Your task to perform on an android device: Open settings Image 0: 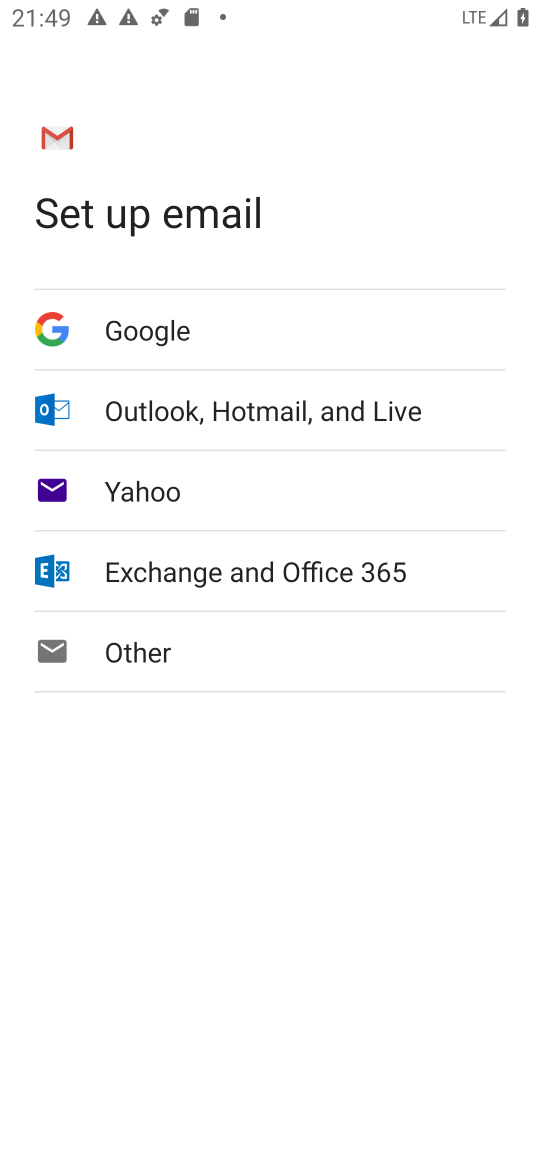
Step 0: press home button
Your task to perform on an android device: Open settings Image 1: 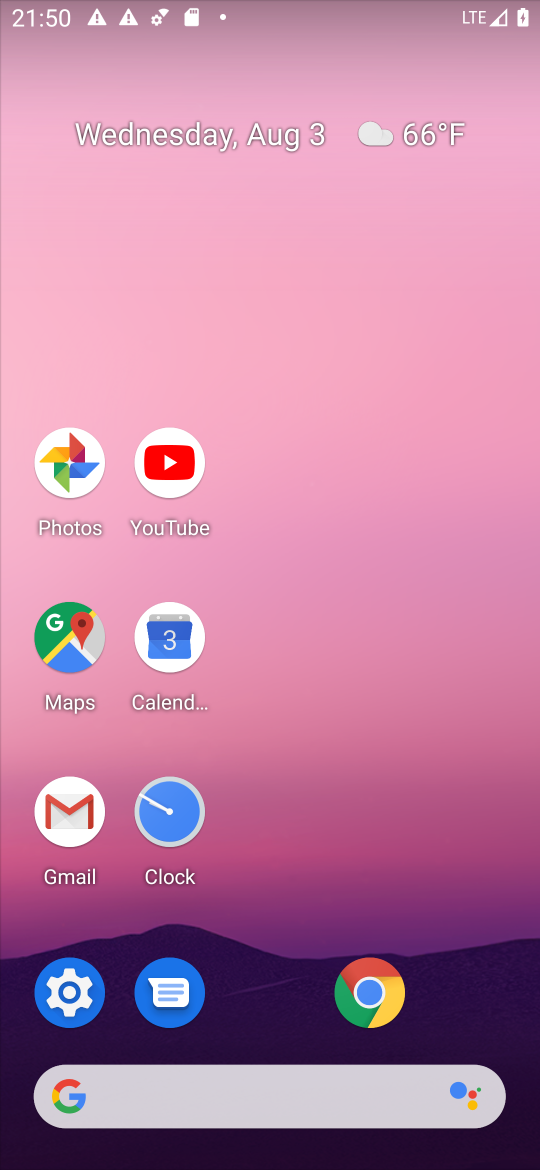
Step 1: click (71, 997)
Your task to perform on an android device: Open settings Image 2: 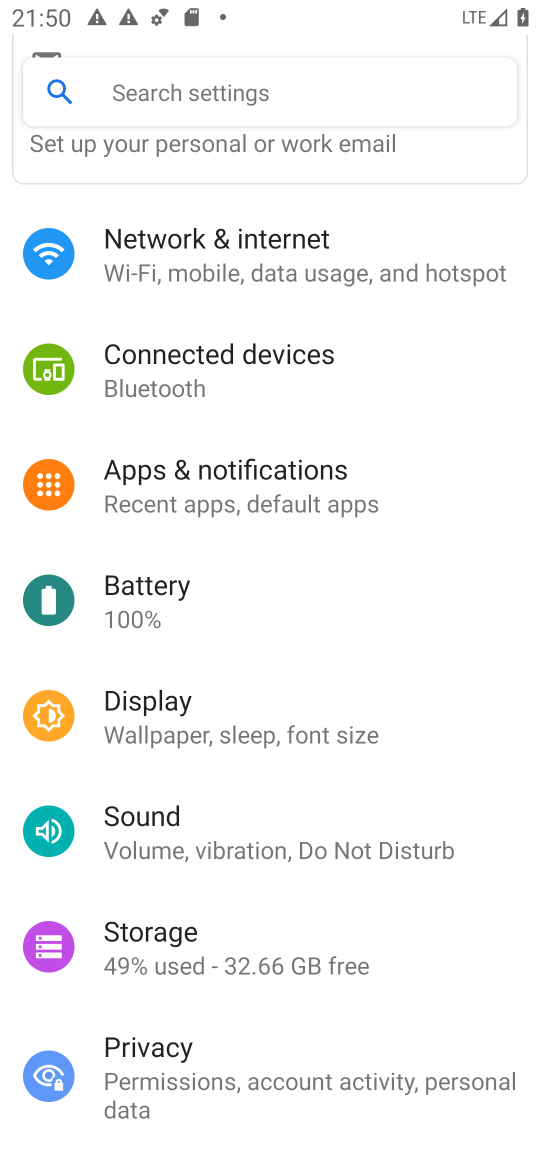
Step 2: task complete